Your task to perform on an android device: Go to internet settings Image 0: 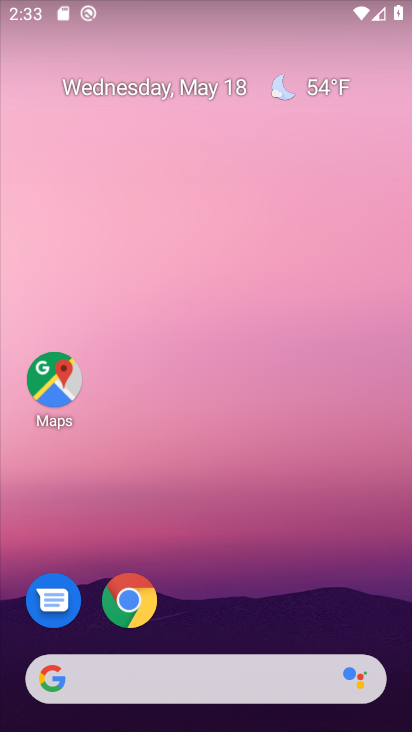
Step 0: drag from (225, 600) to (281, 275)
Your task to perform on an android device: Go to internet settings Image 1: 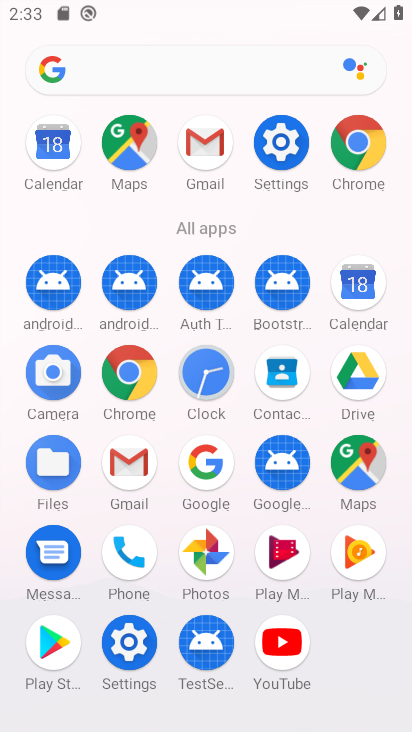
Step 1: click (134, 659)
Your task to perform on an android device: Go to internet settings Image 2: 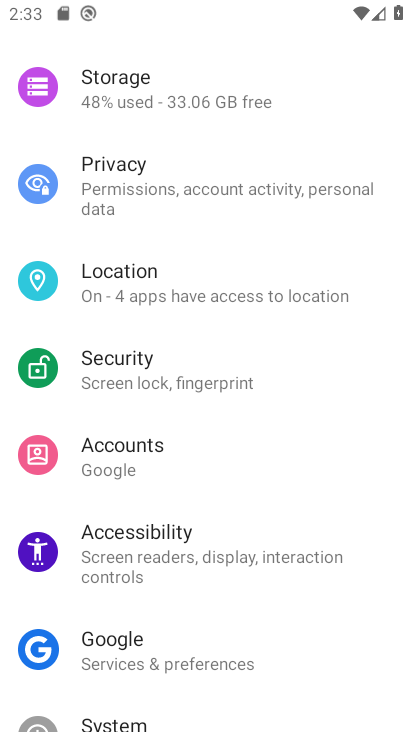
Step 2: drag from (179, 313) to (184, 427)
Your task to perform on an android device: Go to internet settings Image 3: 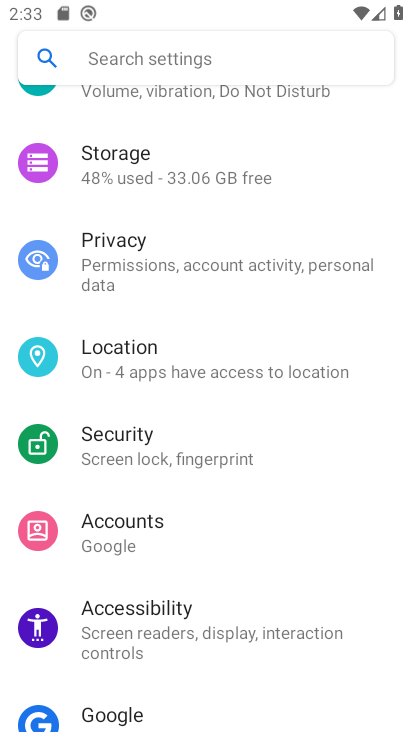
Step 3: drag from (201, 227) to (195, 479)
Your task to perform on an android device: Go to internet settings Image 4: 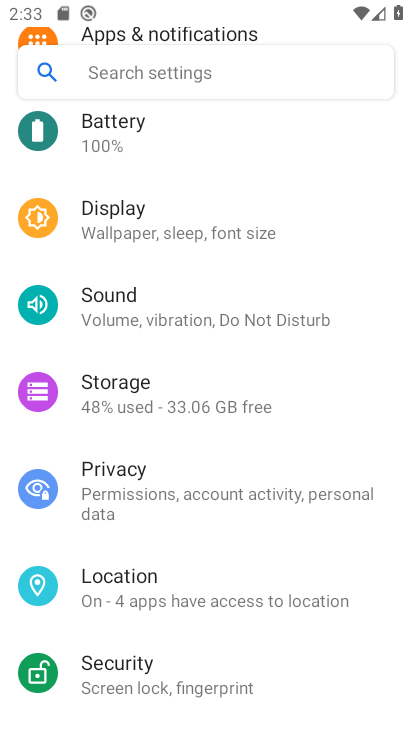
Step 4: drag from (169, 186) to (161, 567)
Your task to perform on an android device: Go to internet settings Image 5: 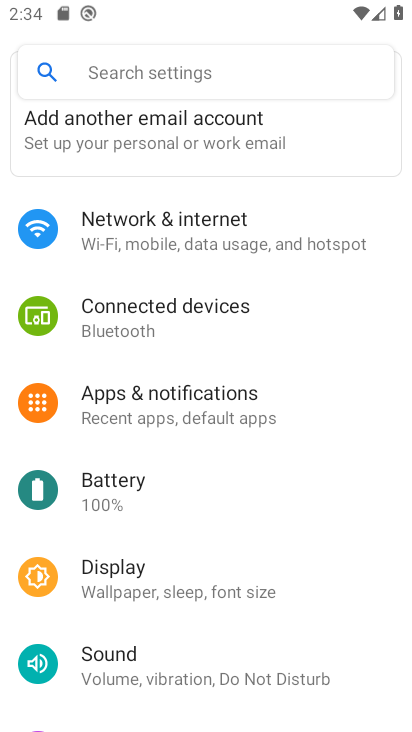
Step 5: click (172, 243)
Your task to perform on an android device: Go to internet settings Image 6: 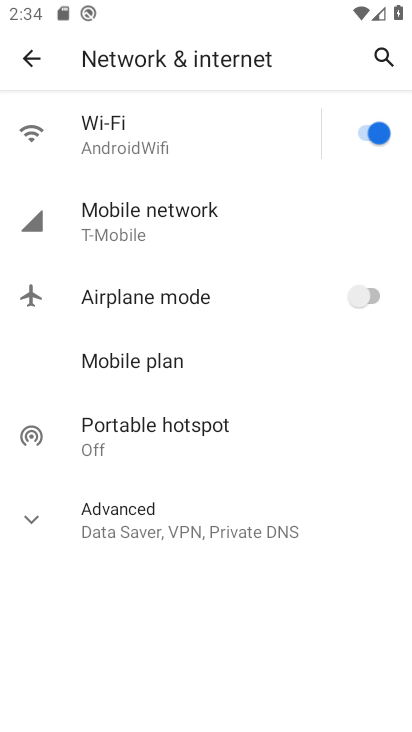
Step 6: task complete